Your task to perform on an android device: Open battery settings Image 0: 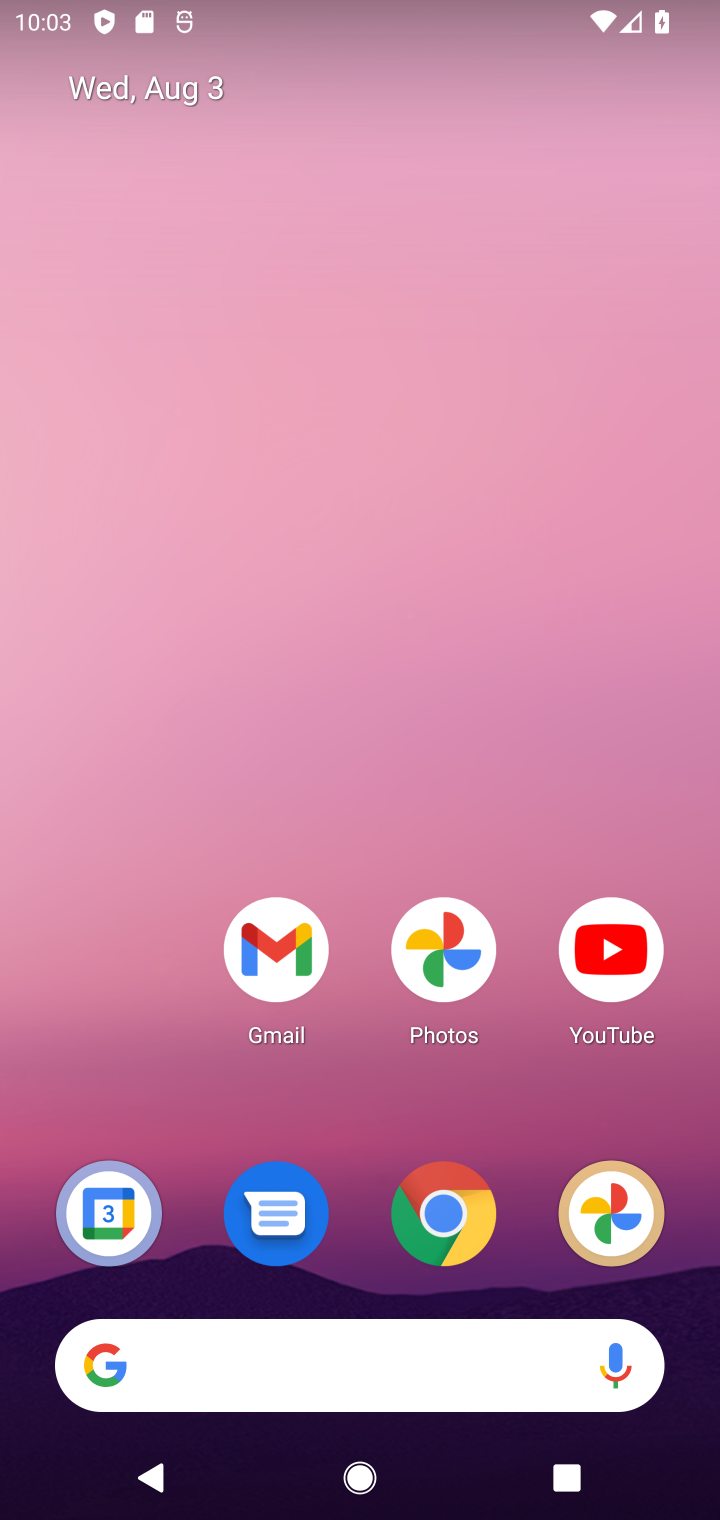
Step 0: drag from (321, 1089) to (276, 350)
Your task to perform on an android device: Open battery settings Image 1: 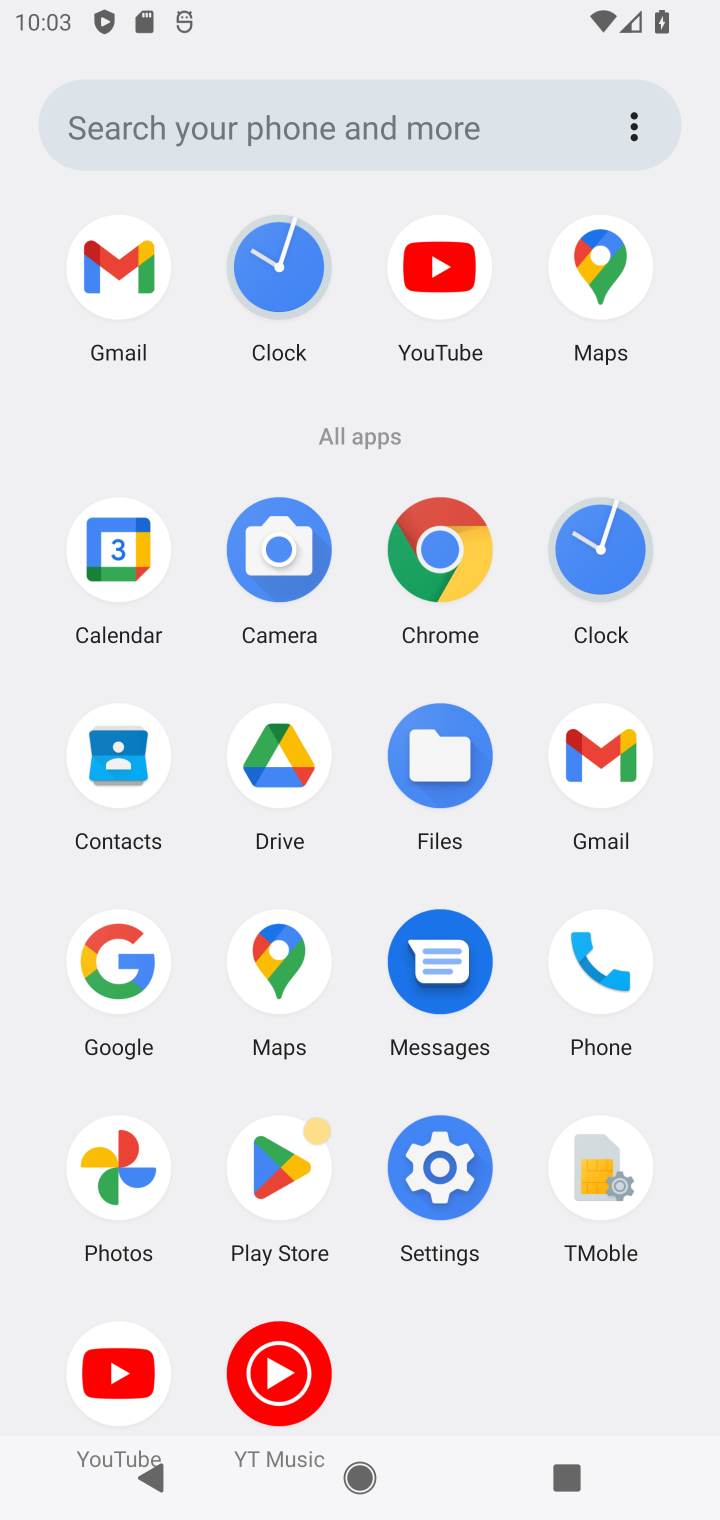
Step 1: click (466, 1150)
Your task to perform on an android device: Open battery settings Image 2: 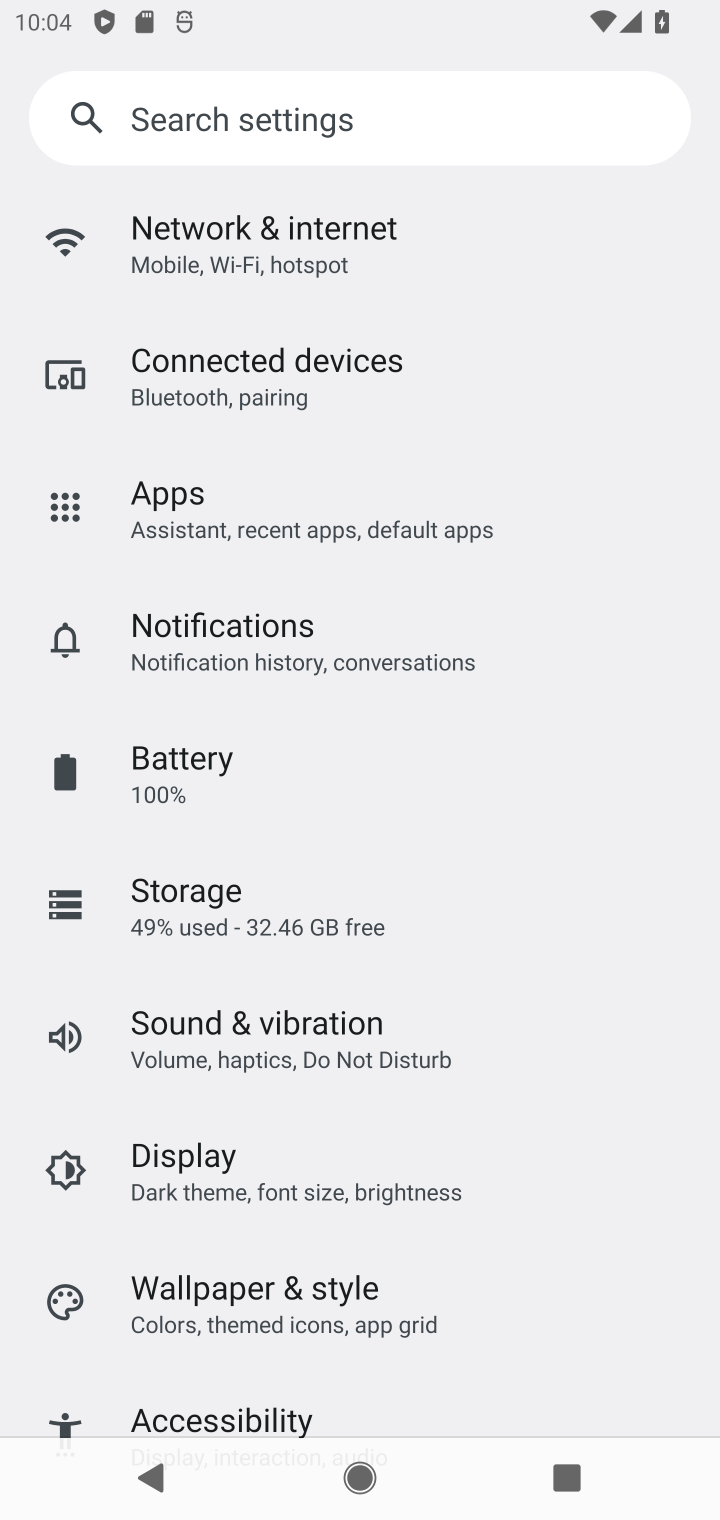
Step 2: click (280, 762)
Your task to perform on an android device: Open battery settings Image 3: 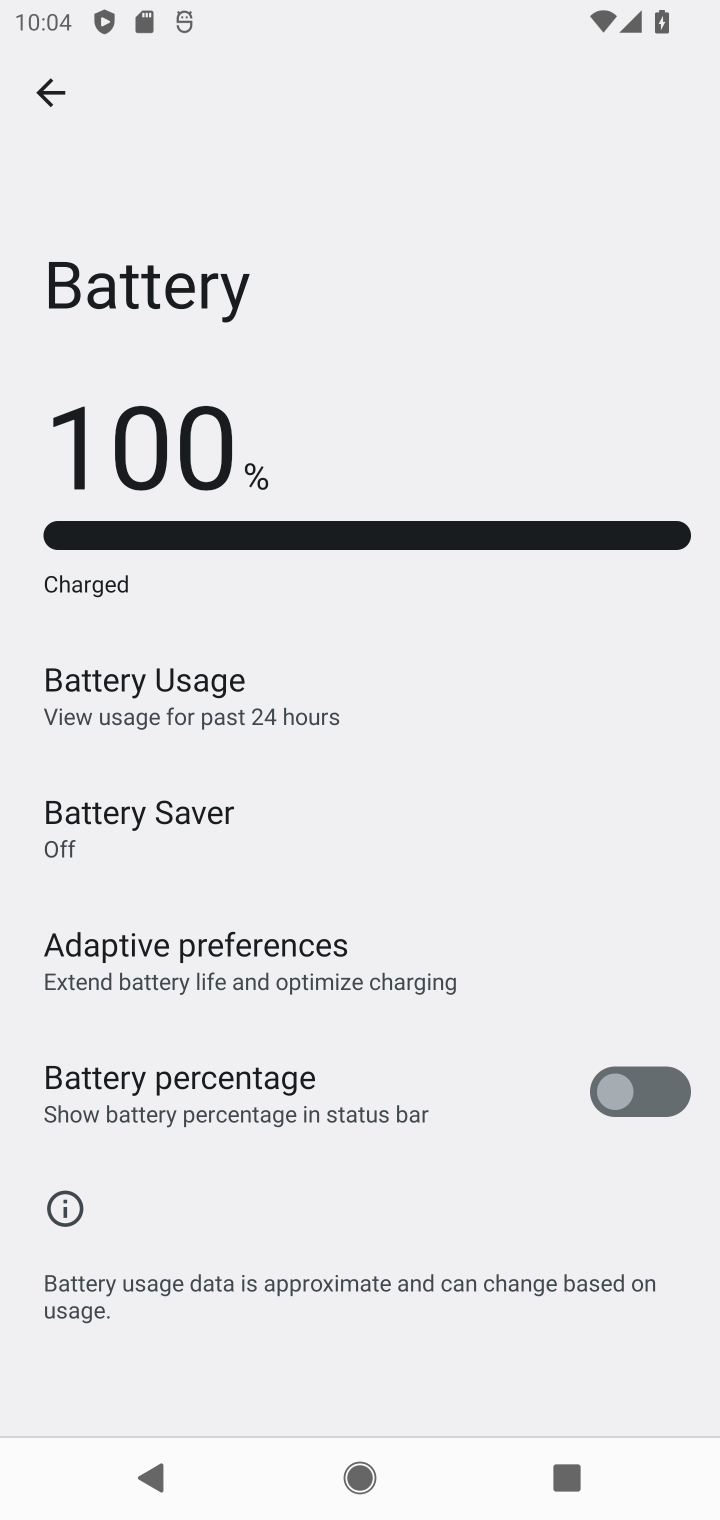
Step 3: task complete